Your task to perform on an android device: Go to settings Image 0: 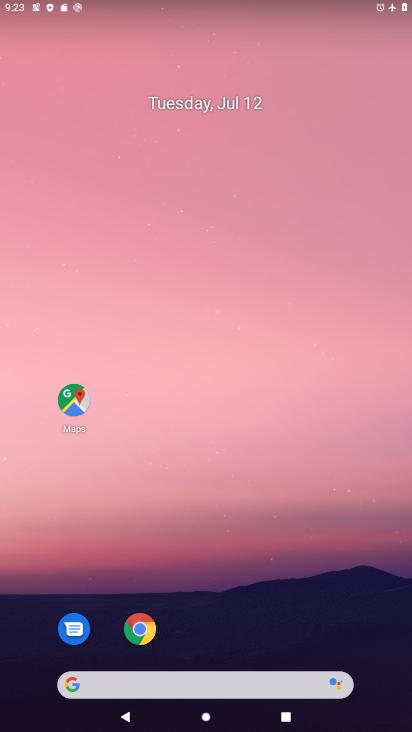
Step 0: drag from (266, 623) to (271, 131)
Your task to perform on an android device: Go to settings Image 1: 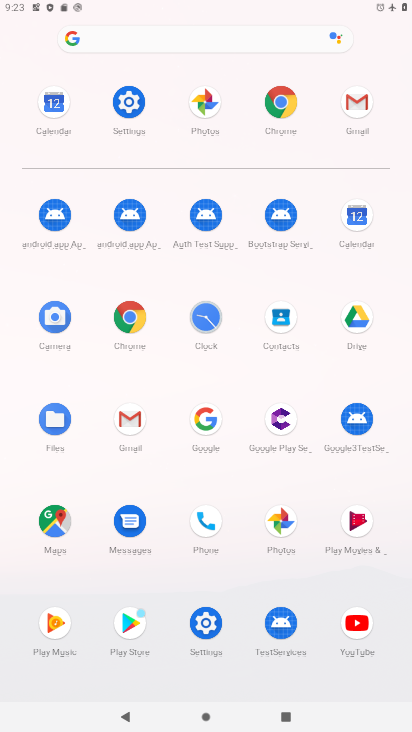
Step 1: click (119, 101)
Your task to perform on an android device: Go to settings Image 2: 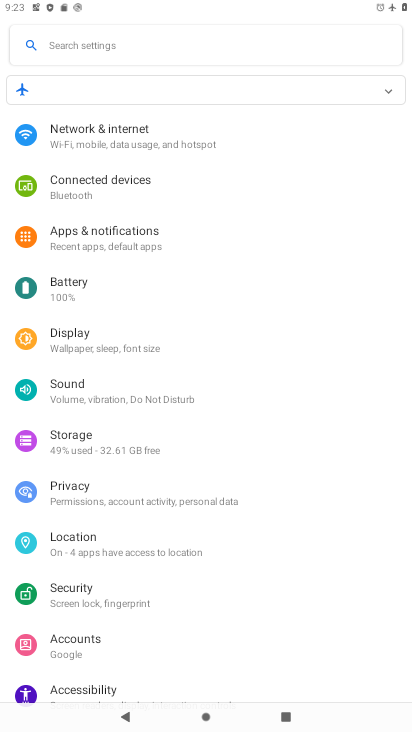
Step 2: task complete